Your task to perform on an android device: Go to privacy settings Image 0: 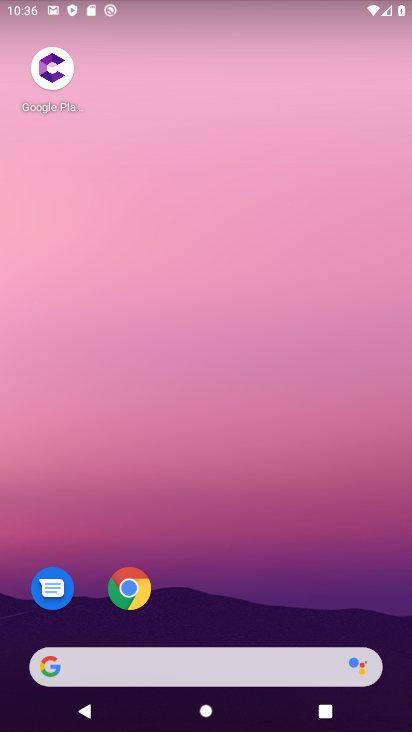
Step 0: drag from (261, 605) to (286, 228)
Your task to perform on an android device: Go to privacy settings Image 1: 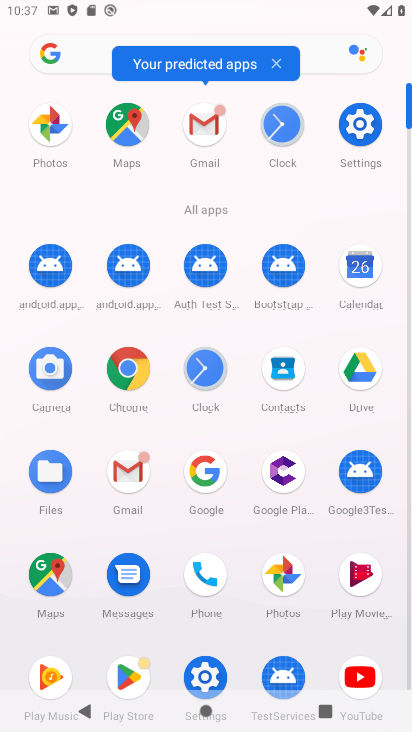
Step 1: click (365, 123)
Your task to perform on an android device: Go to privacy settings Image 2: 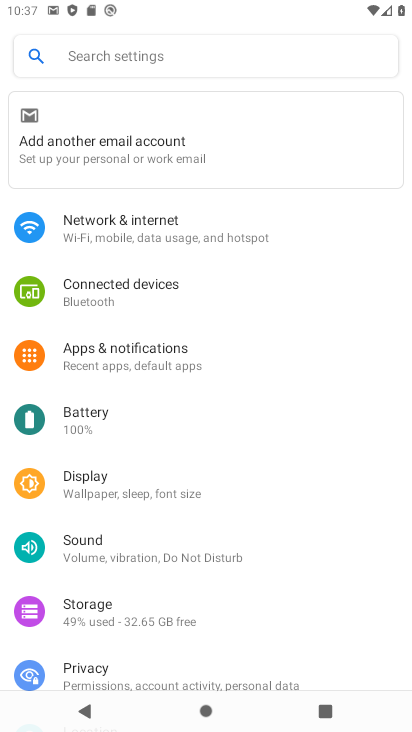
Step 2: click (96, 681)
Your task to perform on an android device: Go to privacy settings Image 3: 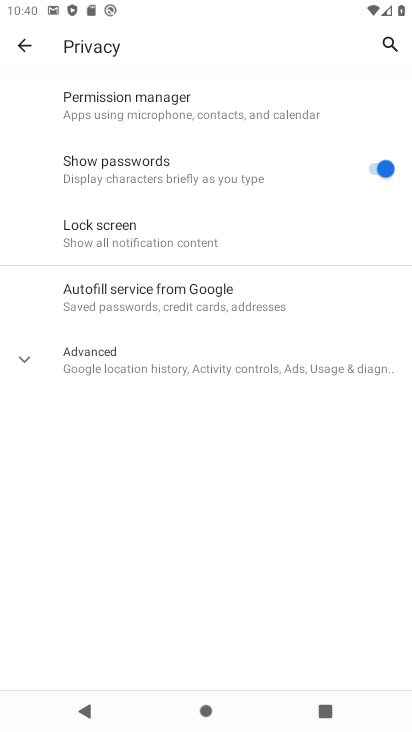
Step 3: task complete